Your task to perform on an android device: Go to location settings Image 0: 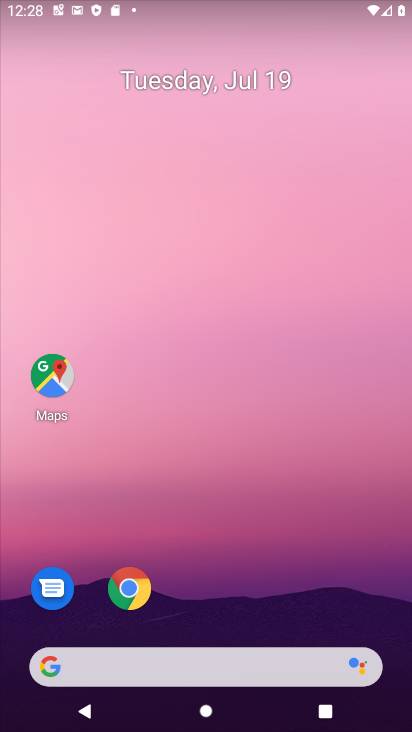
Step 0: drag from (338, 622) to (175, 43)
Your task to perform on an android device: Go to location settings Image 1: 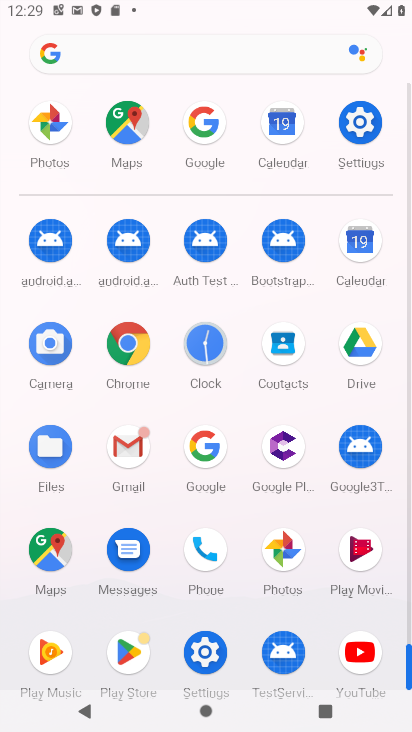
Step 1: click (209, 647)
Your task to perform on an android device: Go to location settings Image 2: 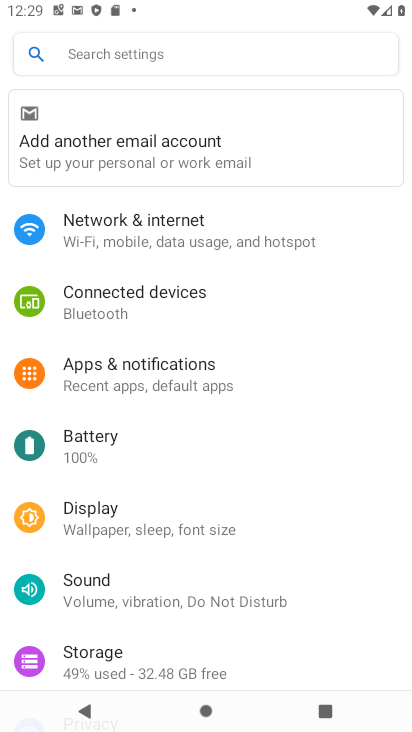
Step 2: drag from (177, 656) to (178, 245)
Your task to perform on an android device: Go to location settings Image 3: 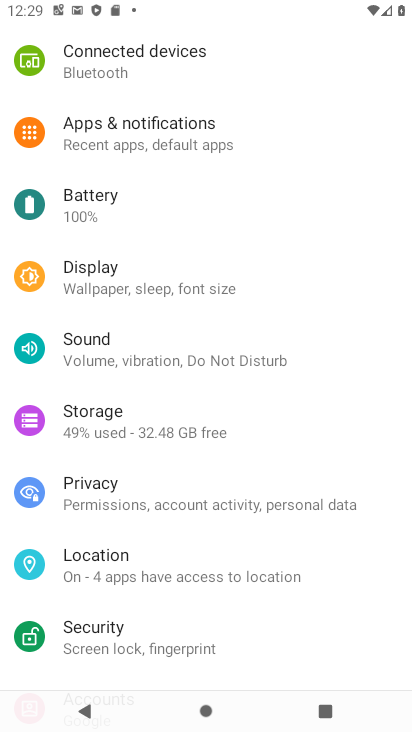
Step 3: click (99, 586)
Your task to perform on an android device: Go to location settings Image 4: 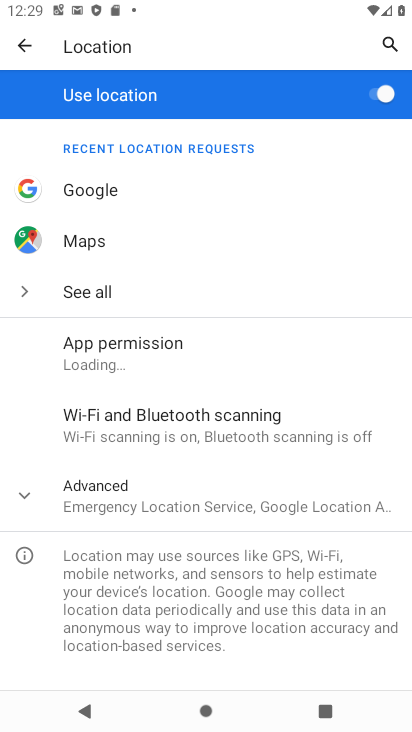
Step 4: task complete